Your task to perform on an android device: Go to Android settings Image 0: 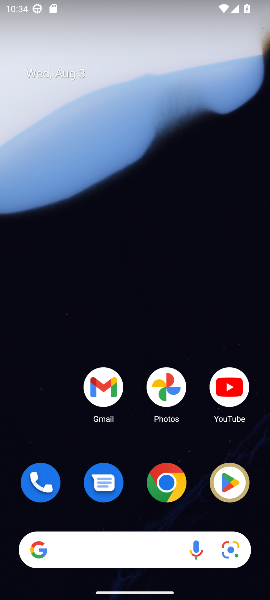
Step 0: drag from (135, 514) to (145, 29)
Your task to perform on an android device: Go to Android settings Image 1: 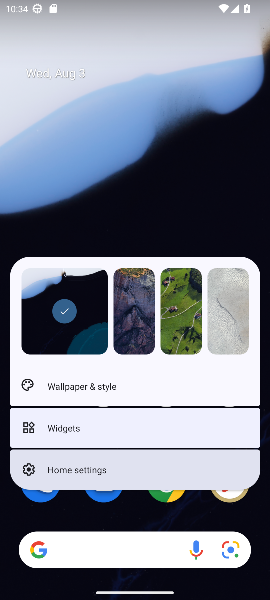
Step 1: task complete